Your task to perform on an android device: What is the recent news? Image 0: 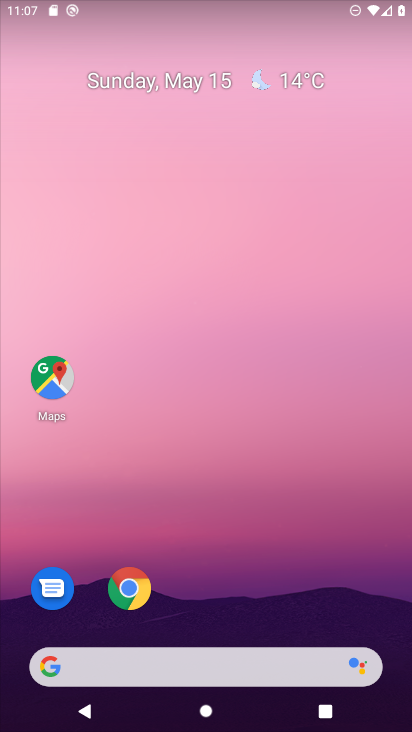
Step 0: drag from (226, 585) to (249, 239)
Your task to perform on an android device: What is the recent news? Image 1: 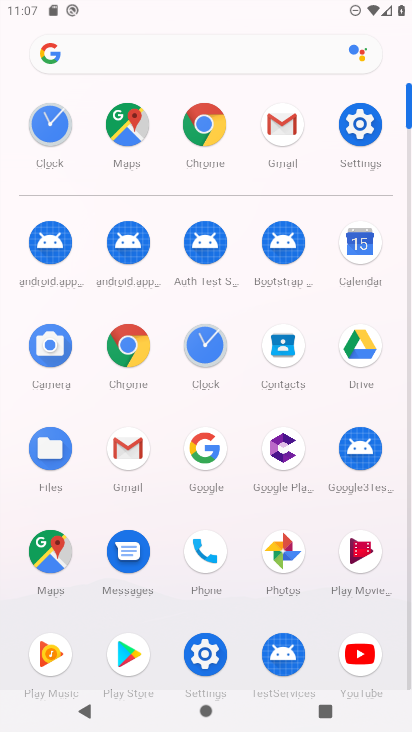
Step 1: click (244, 43)
Your task to perform on an android device: What is the recent news? Image 2: 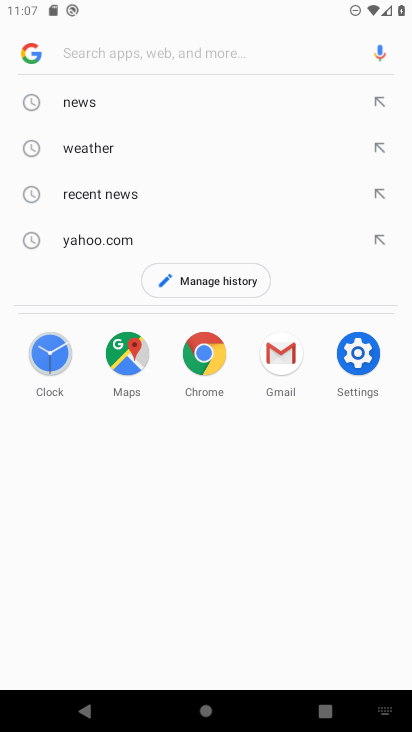
Step 2: type "recent news"
Your task to perform on an android device: What is the recent news? Image 3: 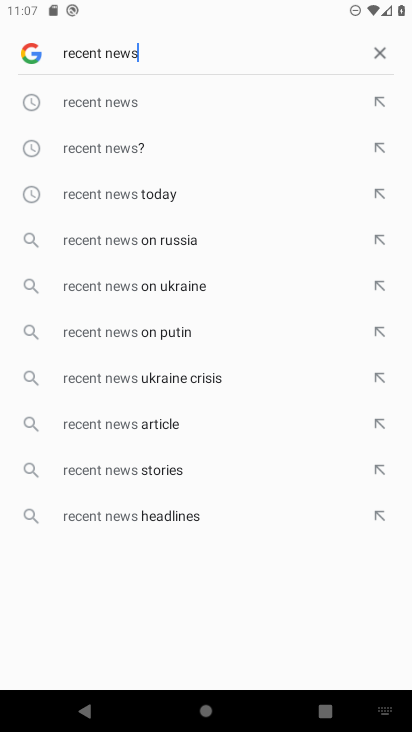
Step 3: click (130, 108)
Your task to perform on an android device: What is the recent news? Image 4: 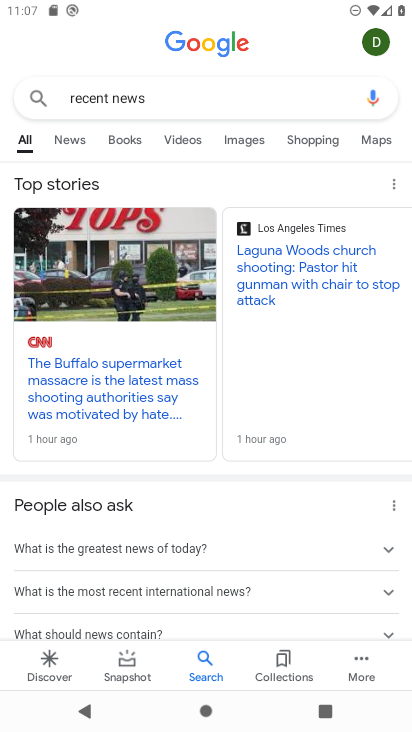
Step 4: task complete